Your task to perform on an android device: Search for pizza restaurants on Maps Image 0: 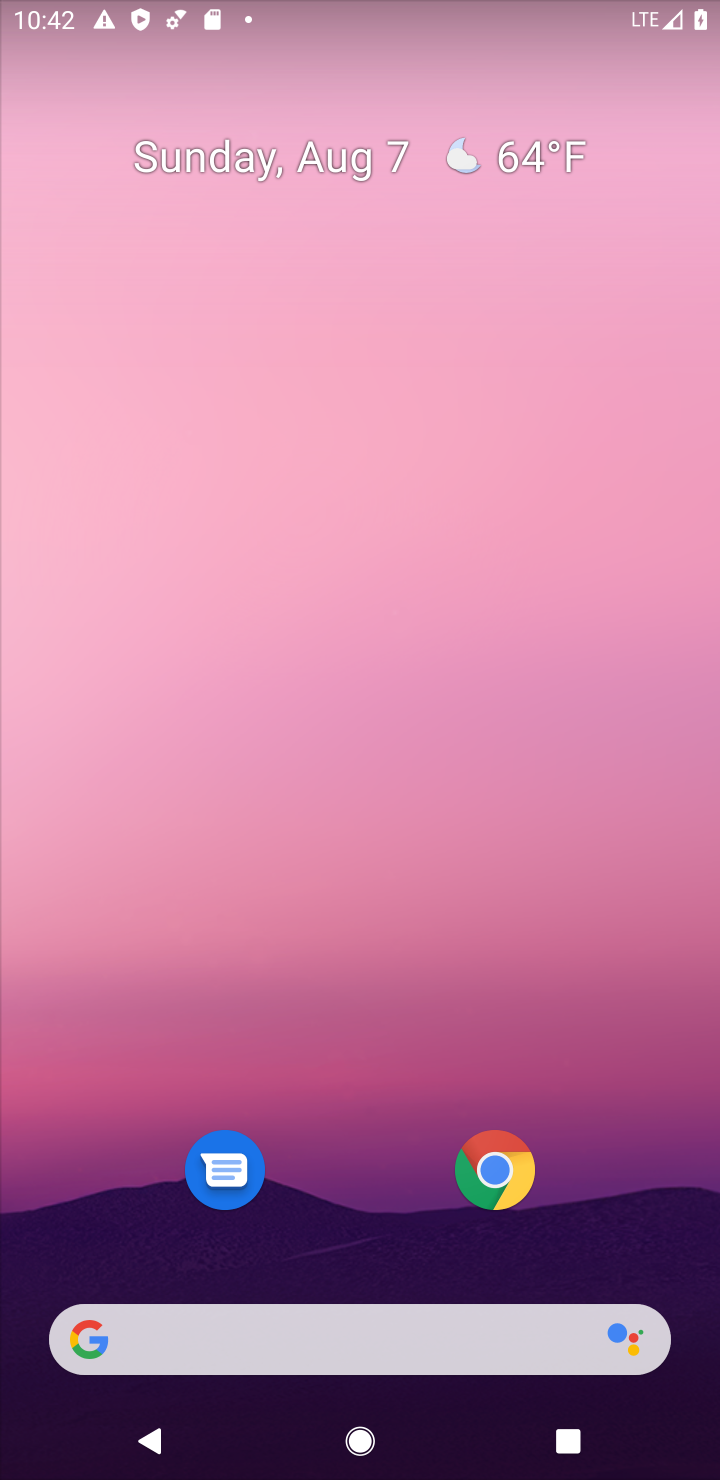
Step 0: press home button
Your task to perform on an android device: Search for pizza restaurants on Maps Image 1: 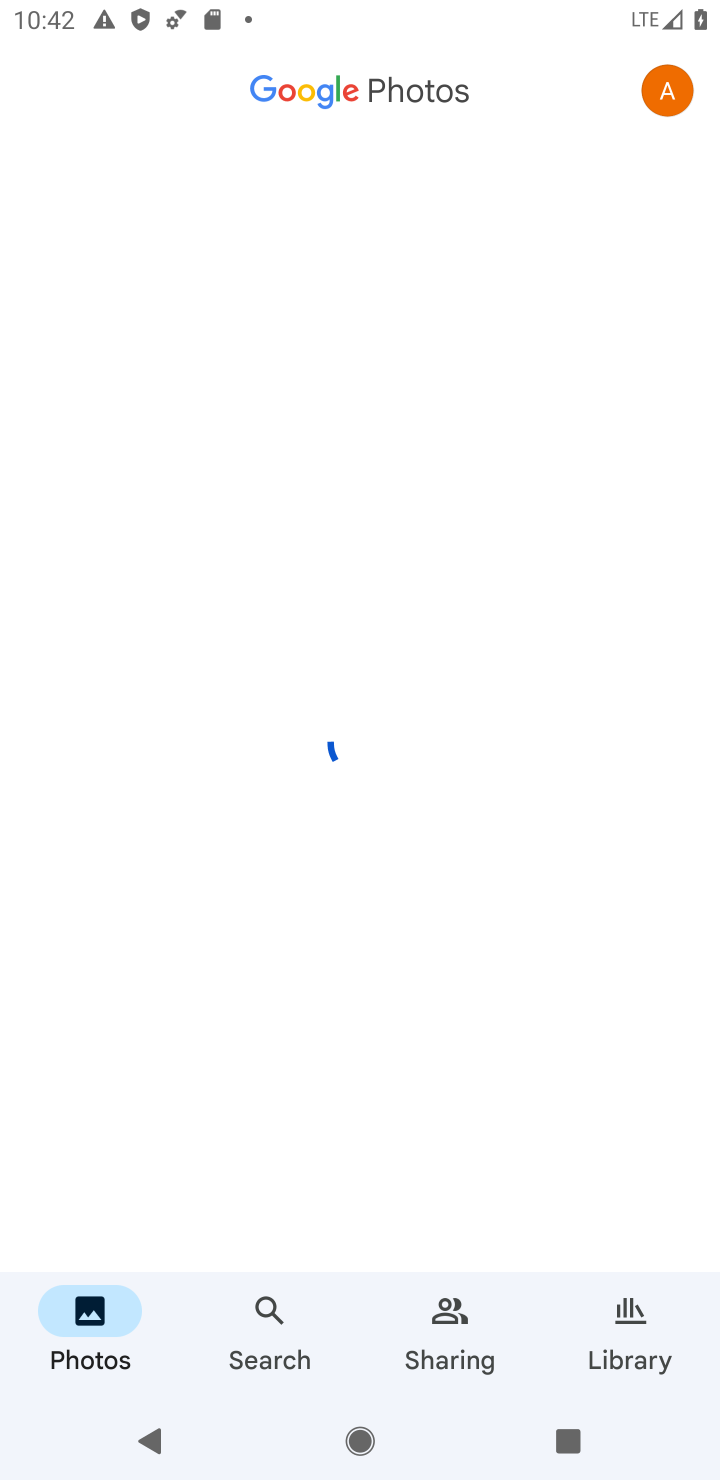
Step 1: click (488, 453)
Your task to perform on an android device: Search for pizza restaurants on Maps Image 2: 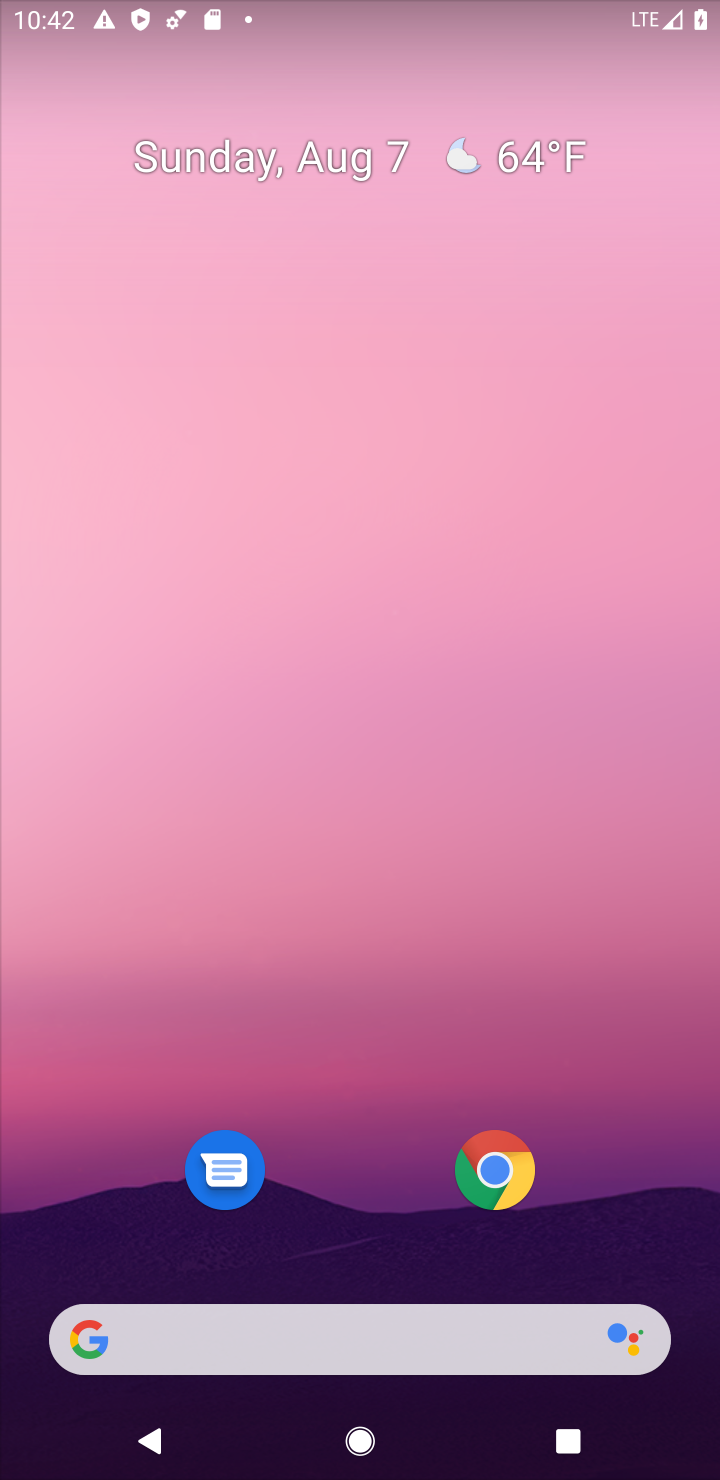
Step 2: drag from (291, 1272) to (328, 343)
Your task to perform on an android device: Search for pizza restaurants on Maps Image 3: 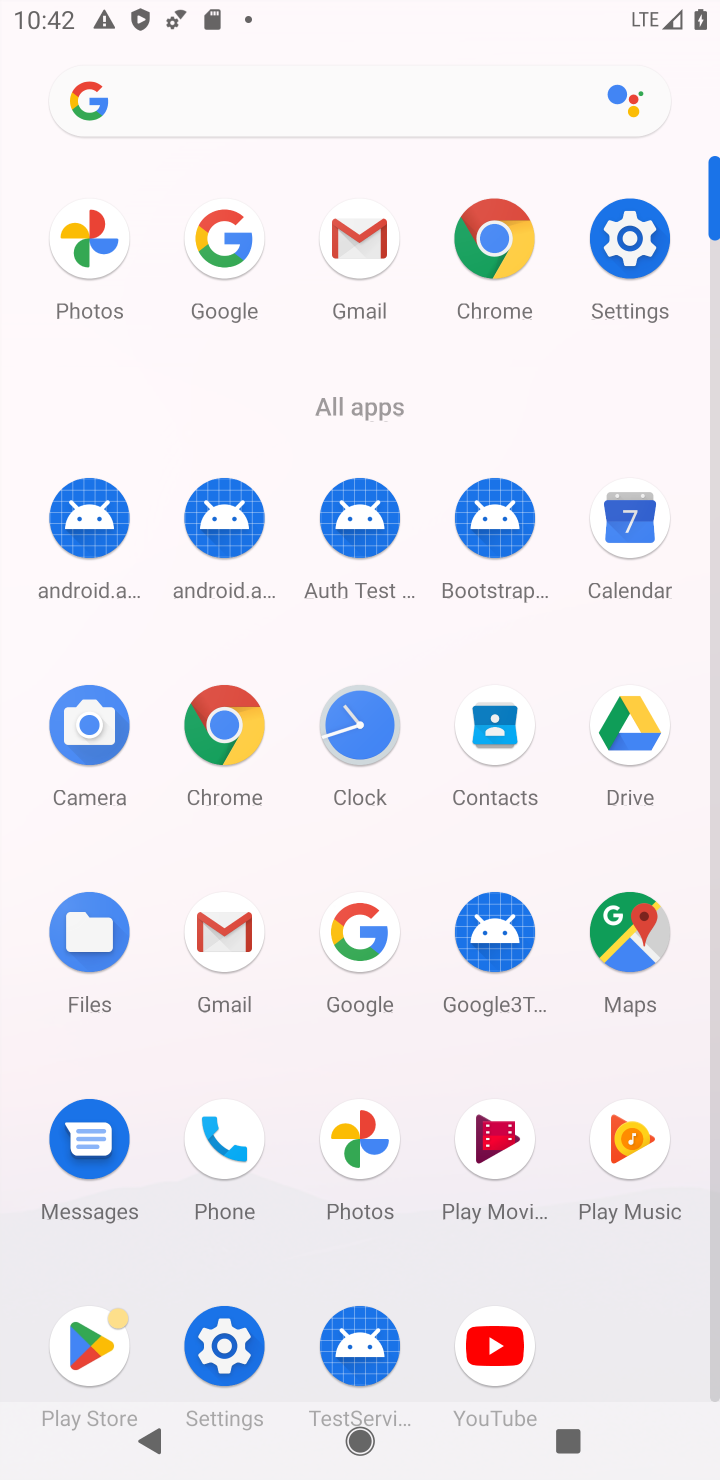
Step 3: click (626, 944)
Your task to perform on an android device: Search for pizza restaurants on Maps Image 4: 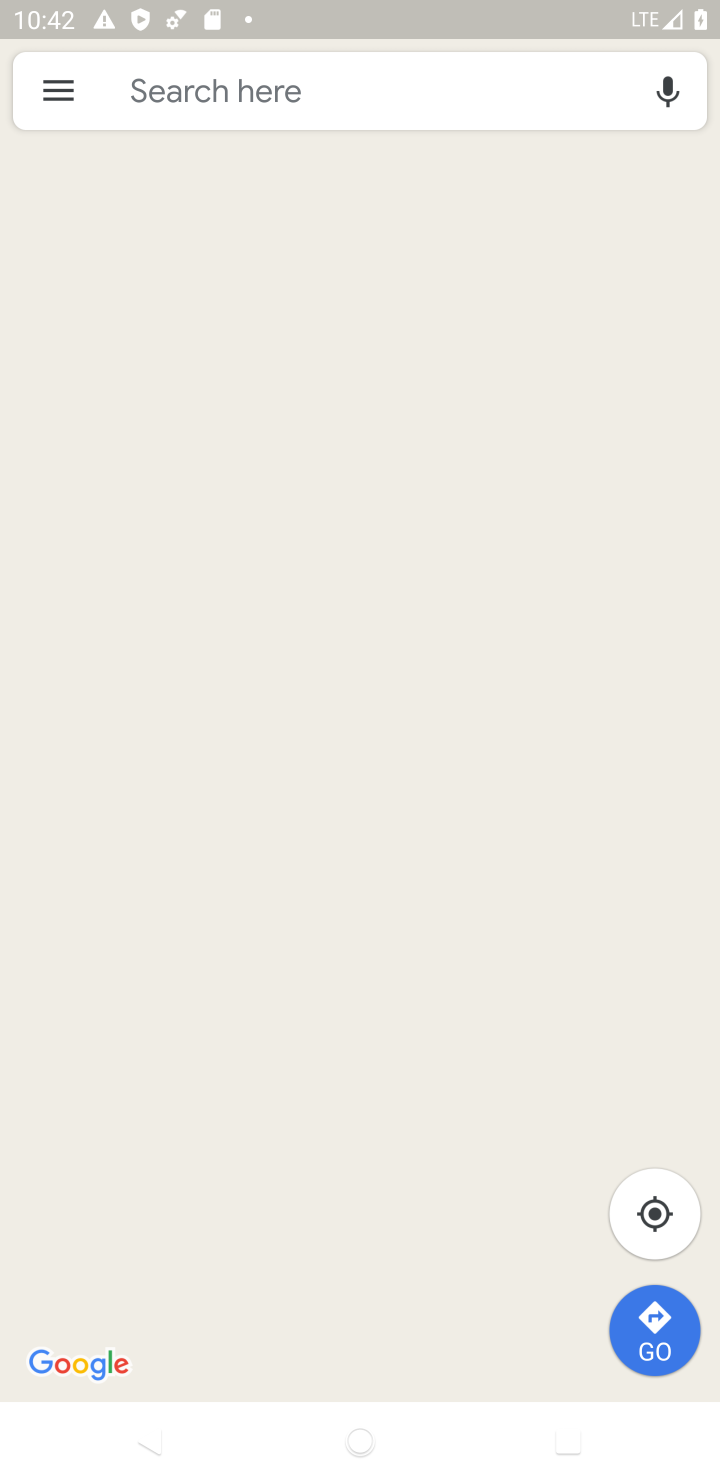
Step 4: click (475, 73)
Your task to perform on an android device: Search for pizza restaurants on Maps Image 5: 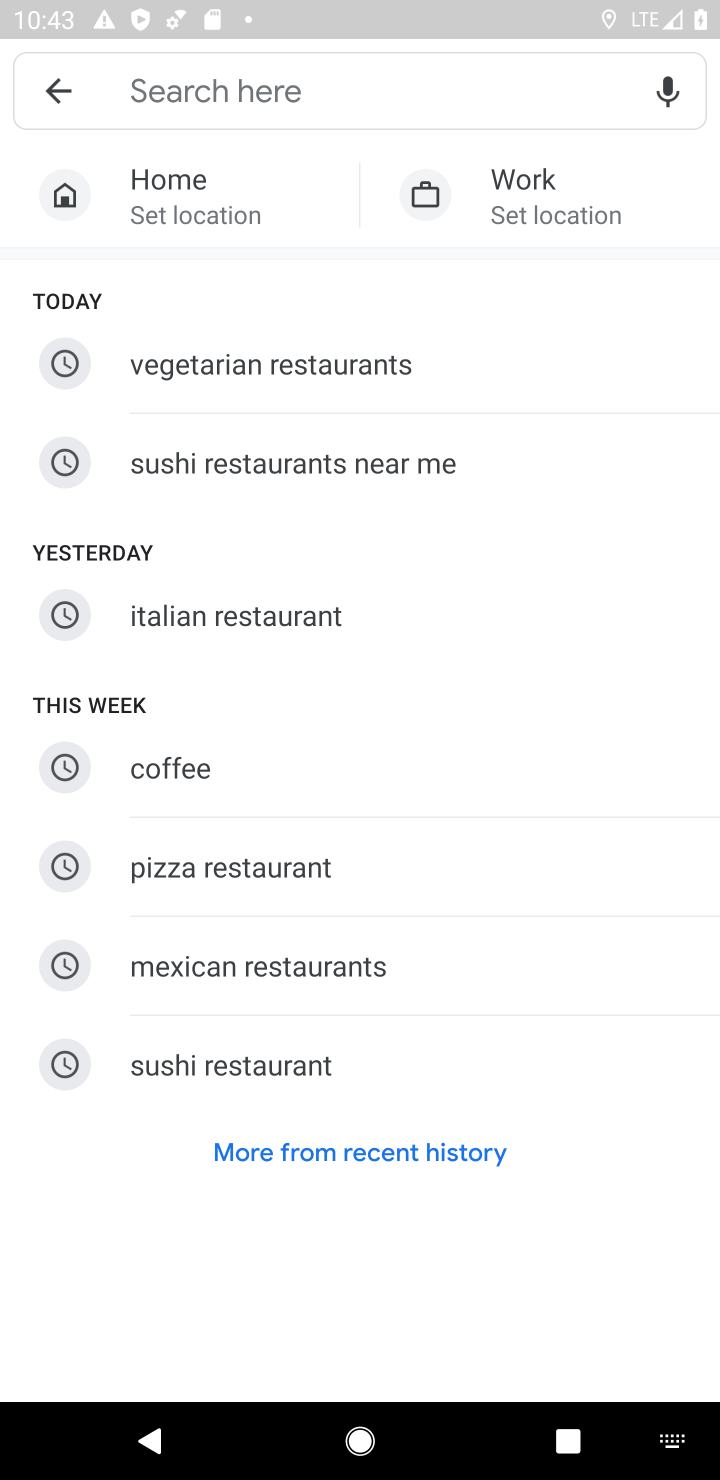
Step 5: type "pizza restaurant"
Your task to perform on an android device: Search for pizza restaurants on Maps Image 6: 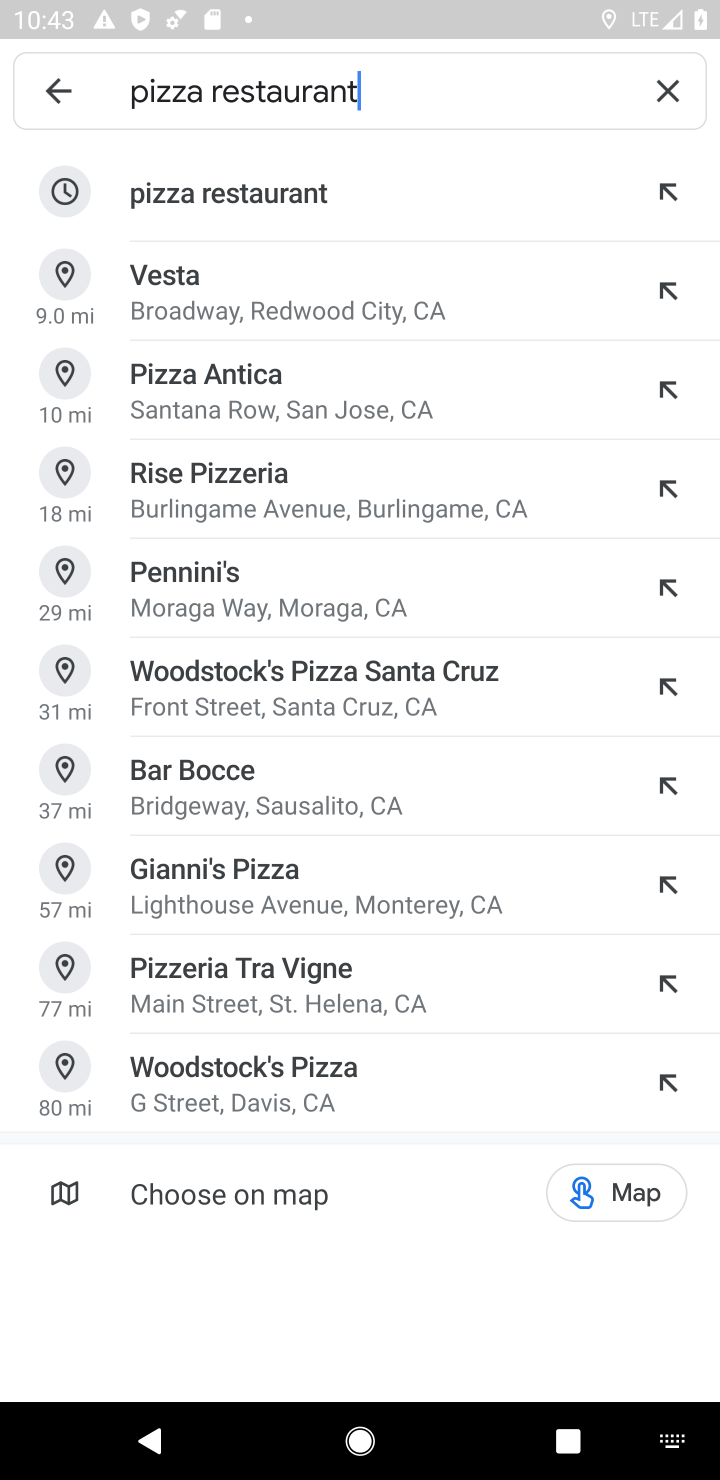
Step 6: click (252, 188)
Your task to perform on an android device: Search for pizza restaurants on Maps Image 7: 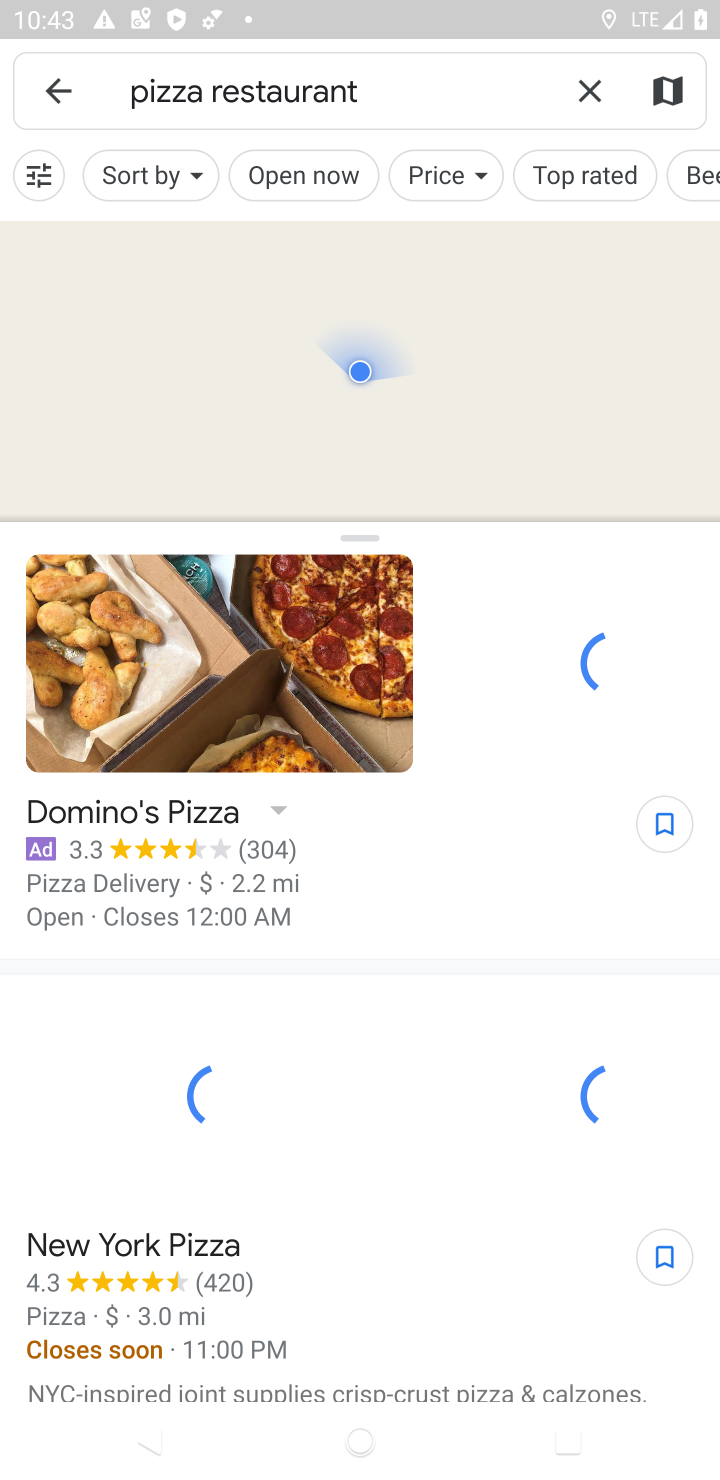
Step 7: task complete